Your task to perform on an android device: toggle improve location accuracy Image 0: 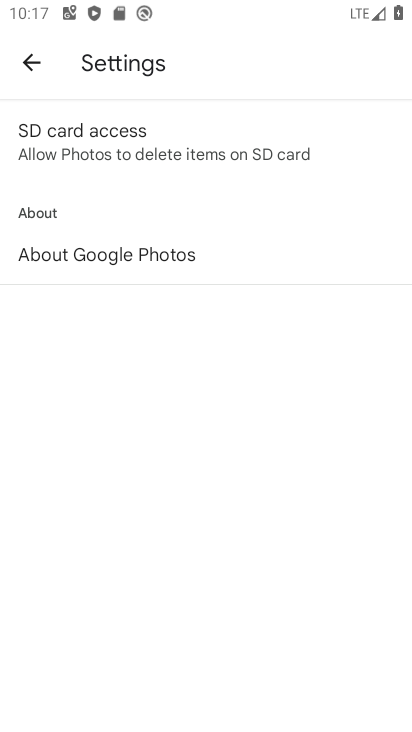
Step 0: click (30, 68)
Your task to perform on an android device: toggle improve location accuracy Image 1: 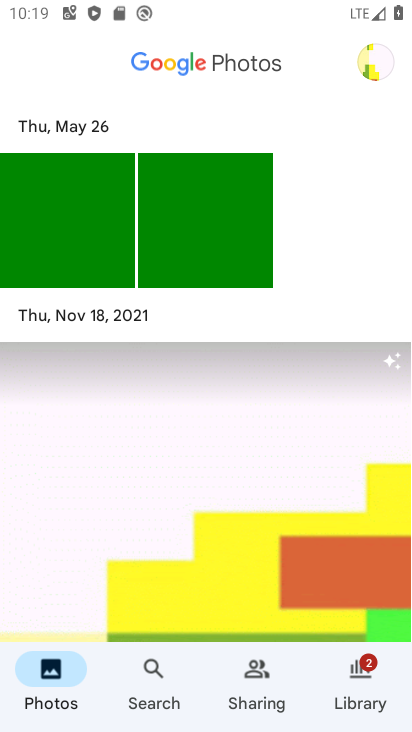
Step 1: press home button
Your task to perform on an android device: toggle improve location accuracy Image 2: 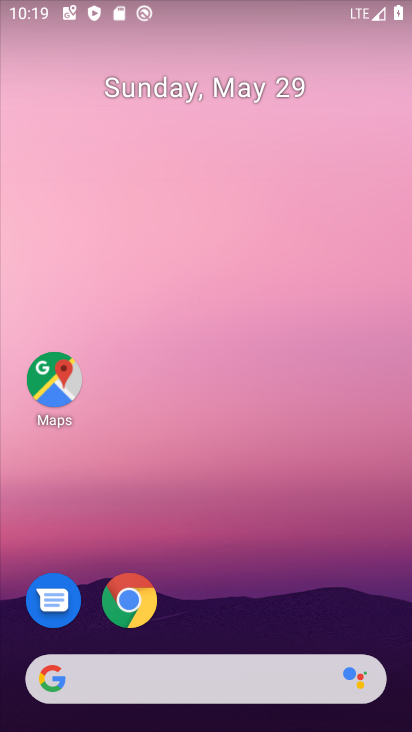
Step 2: drag from (303, 600) to (236, 203)
Your task to perform on an android device: toggle improve location accuracy Image 3: 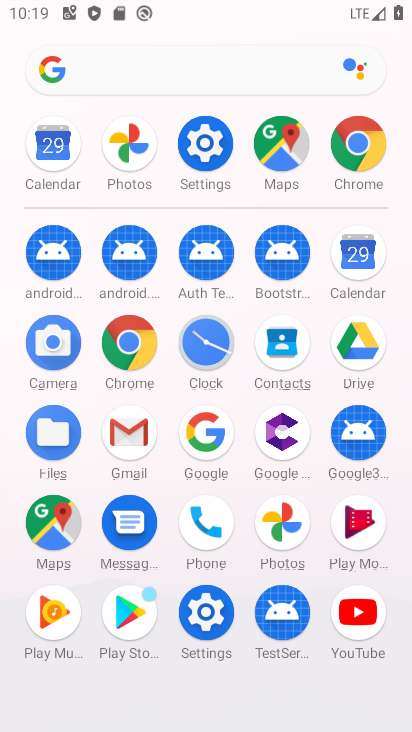
Step 3: click (226, 608)
Your task to perform on an android device: toggle improve location accuracy Image 4: 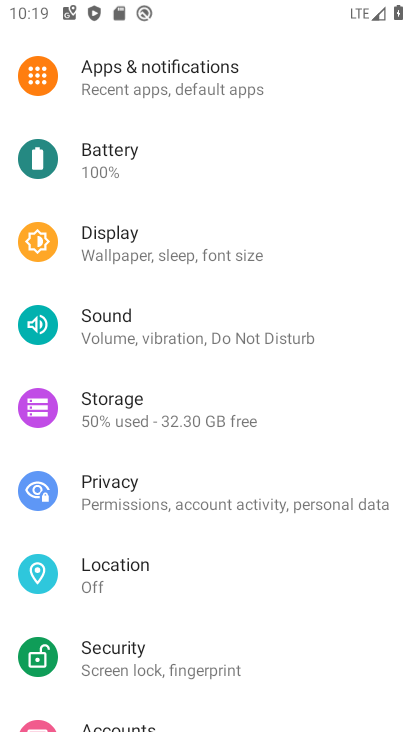
Step 4: click (81, 588)
Your task to perform on an android device: toggle improve location accuracy Image 5: 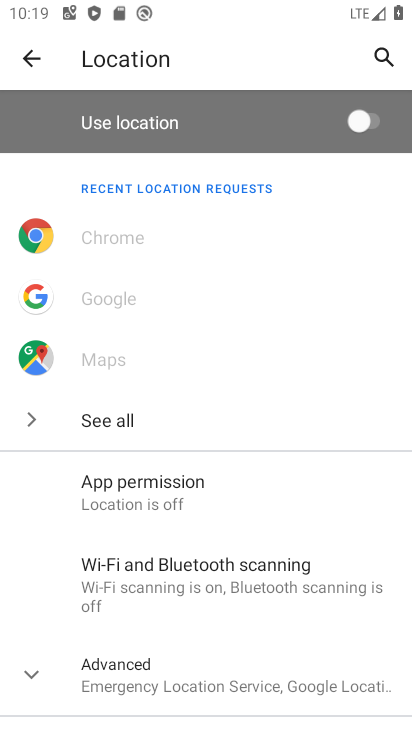
Step 5: click (235, 695)
Your task to perform on an android device: toggle improve location accuracy Image 6: 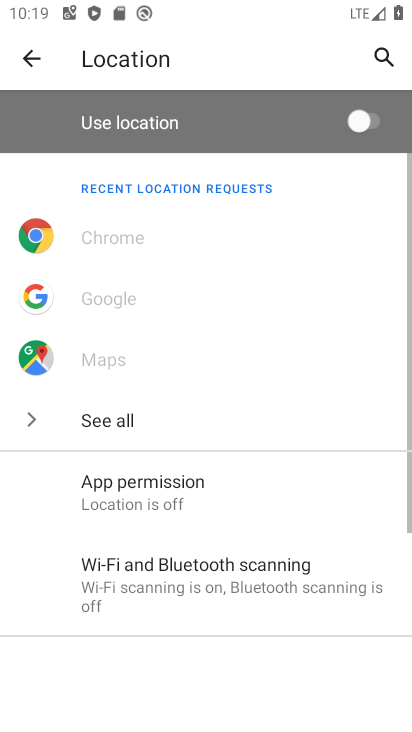
Step 6: drag from (227, 605) to (115, 182)
Your task to perform on an android device: toggle improve location accuracy Image 7: 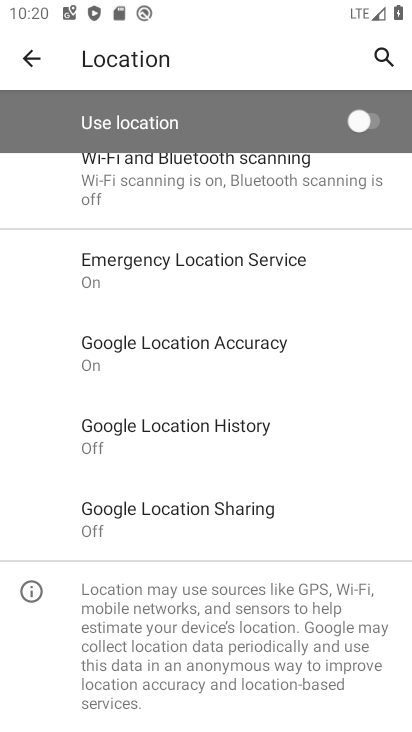
Step 7: click (204, 362)
Your task to perform on an android device: toggle improve location accuracy Image 8: 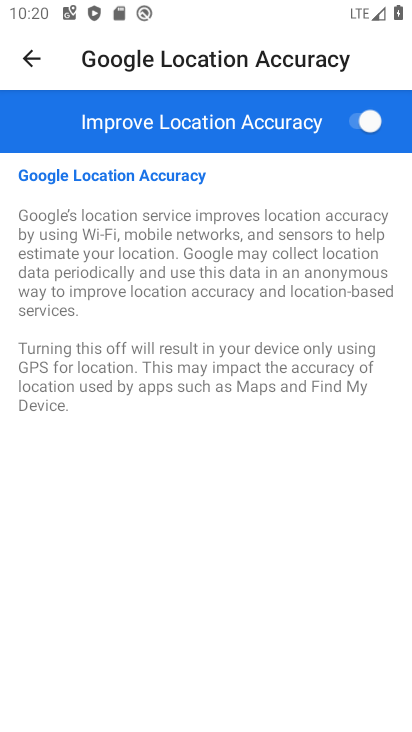
Step 8: click (206, 116)
Your task to perform on an android device: toggle improve location accuracy Image 9: 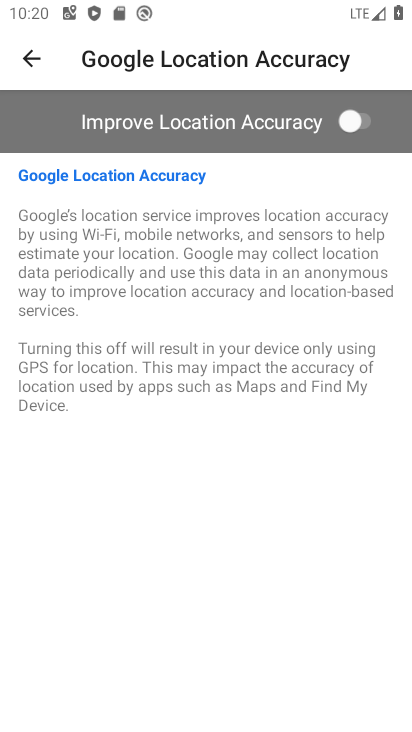
Step 9: task complete